Your task to perform on an android device: snooze an email in the gmail app Image 0: 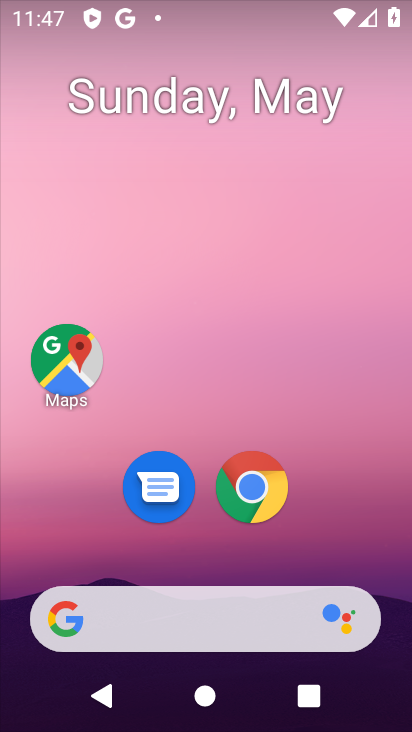
Step 0: drag from (198, 558) to (195, 14)
Your task to perform on an android device: snooze an email in the gmail app Image 1: 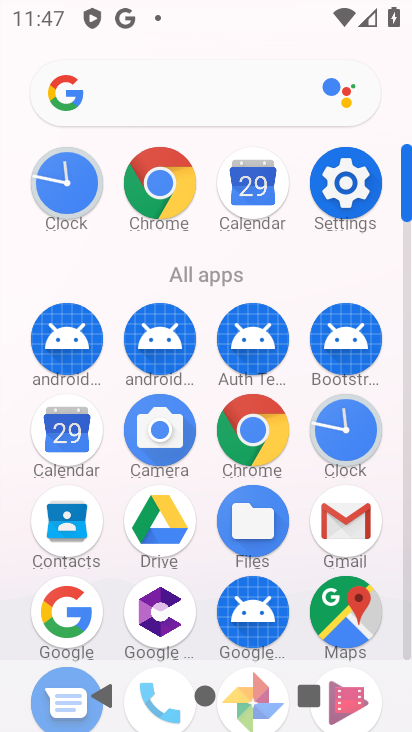
Step 1: click (341, 520)
Your task to perform on an android device: snooze an email in the gmail app Image 2: 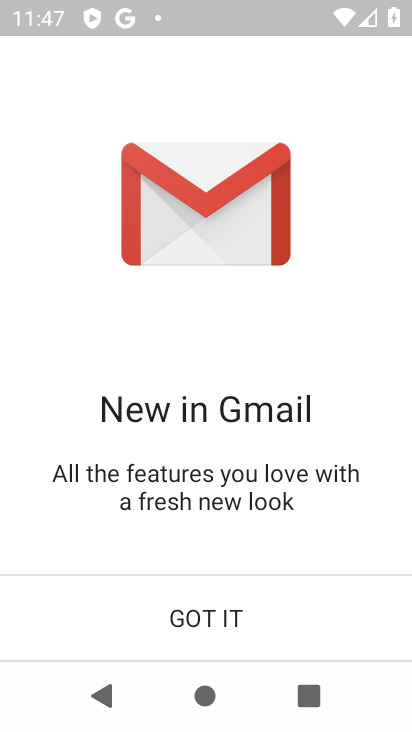
Step 2: click (216, 611)
Your task to perform on an android device: snooze an email in the gmail app Image 3: 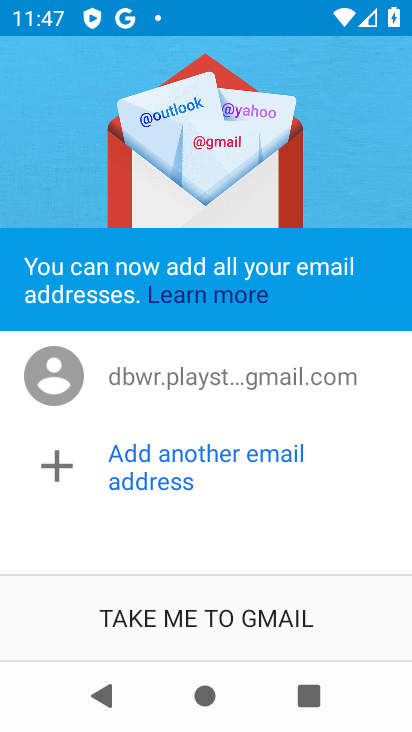
Step 3: click (259, 610)
Your task to perform on an android device: snooze an email in the gmail app Image 4: 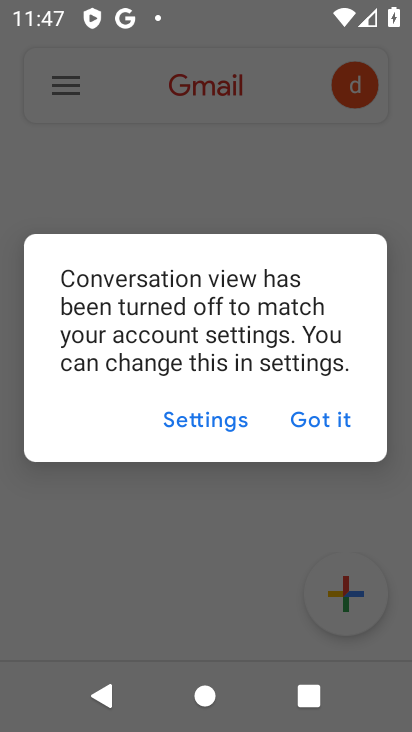
Step 4: click (338, 414)
Your task to perform on an android device: snooze an email in the gmail app Image 5: 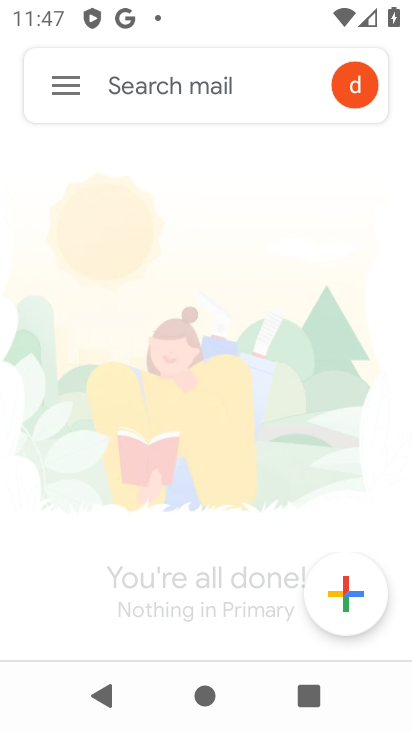
Step 5: click (77, 89)
Your task to perform on an android device: snooze an email in the gmail app Image 6: 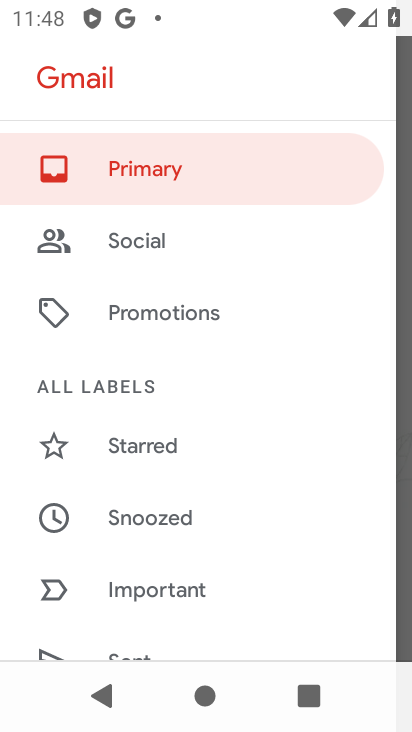
Step 6: drag from (192, 607) to (163, 153)
Your task to perform on an android device: snooze an email in the gmail app Image 7: 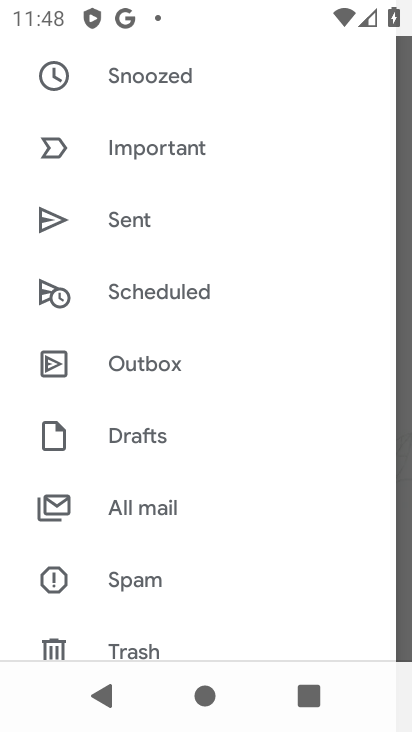
Step 7: click (155, 495)
Your task to perform on an android device: snooze an email in the gmail app Image 8: 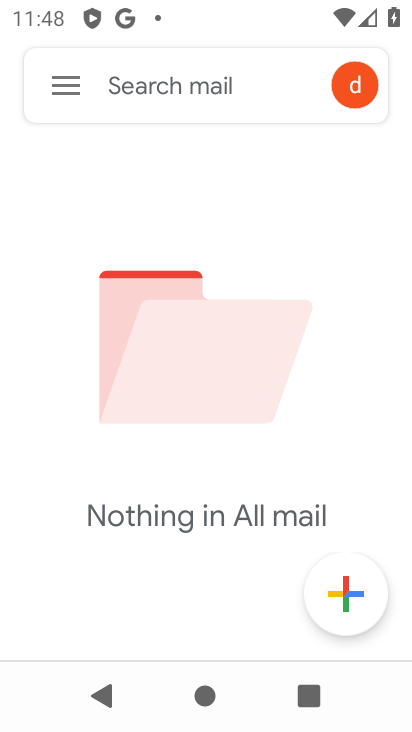
Step 8: task complete